Your task to perform on an android device: Open Google Maps and go to "Timeline" Image 0: 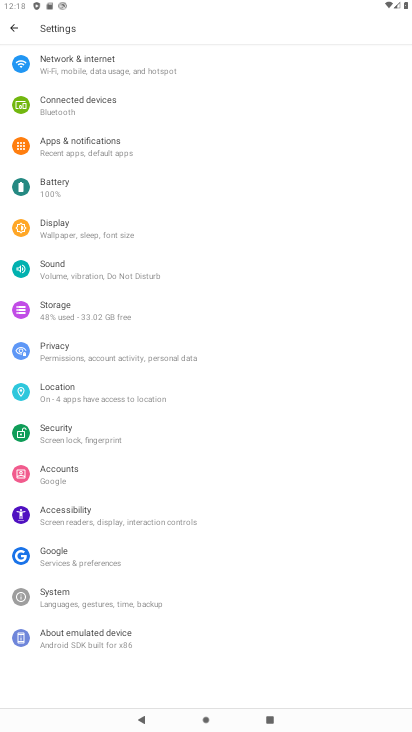
Step 0: press home button
Your task to perform on an android device: Open Google Maps and go to "Timeline" Image 1: 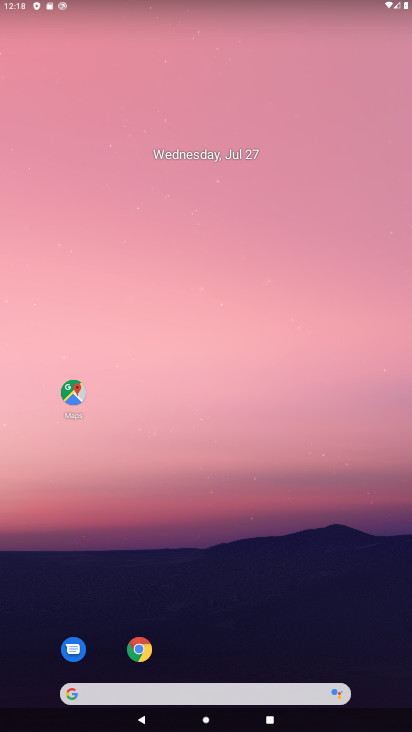
Step 1: click (77, 395)
Your task to perform on an android device: Open Google Maps and go to "Timeline" Image 2: 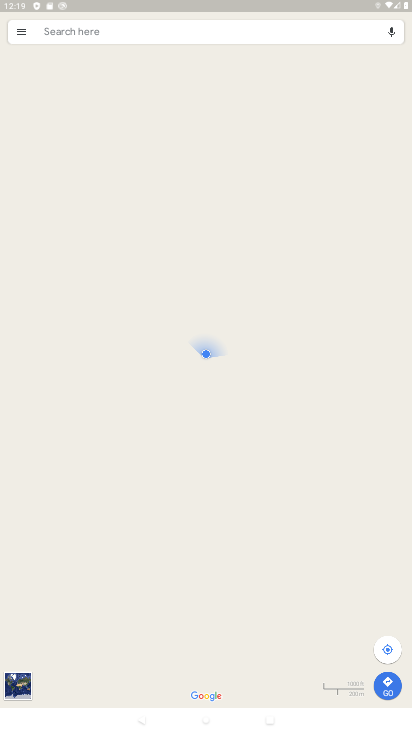
Step 2: click (19, 32)
Your task to perform on an android device: Open Google Maps and go to "Timeline" Image 3: 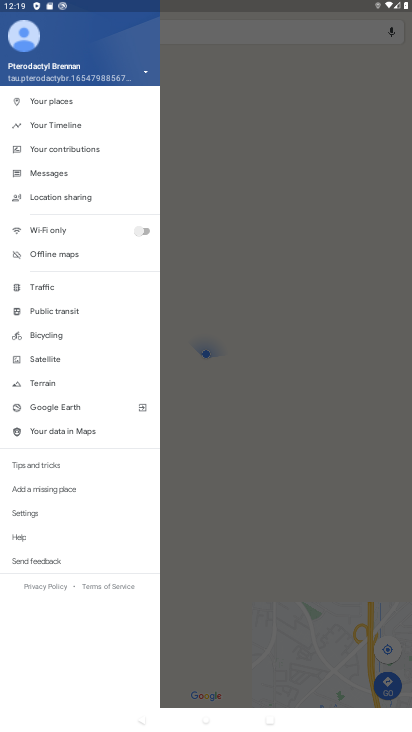
Step 3: click (62, 124)
Your task to perform on an android device: Open Google Maps and go to "Timeline" Image 4: 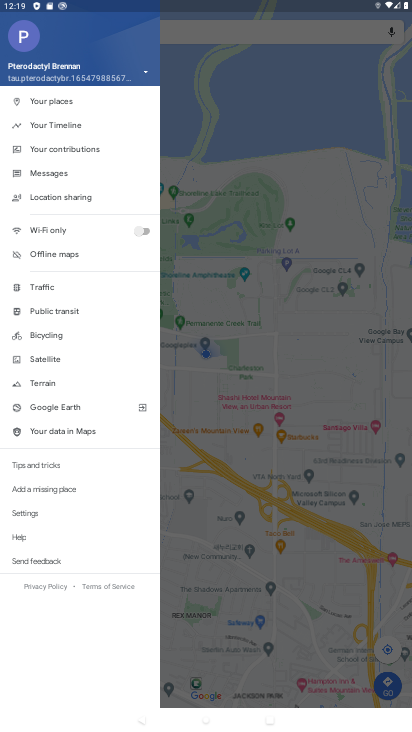
Step 4: click (64, 127)
Your task to perform on an android device: Open Google Maps and go to "Timeline" Image 5: 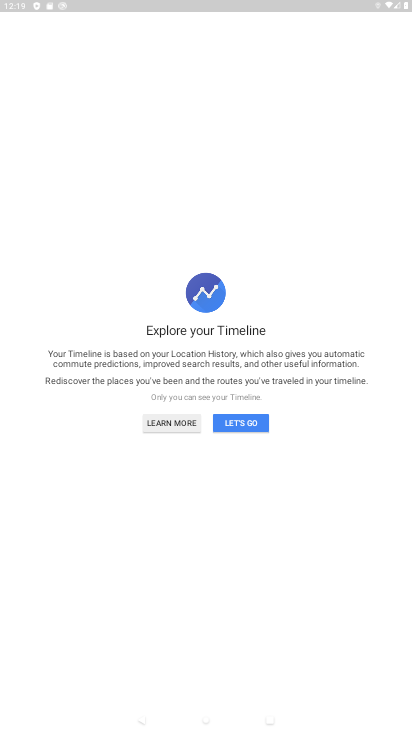
Step 5: click (240, 417)
Your task to perform on an android device: Open Google Maps and go to "Timeline" Image 6: 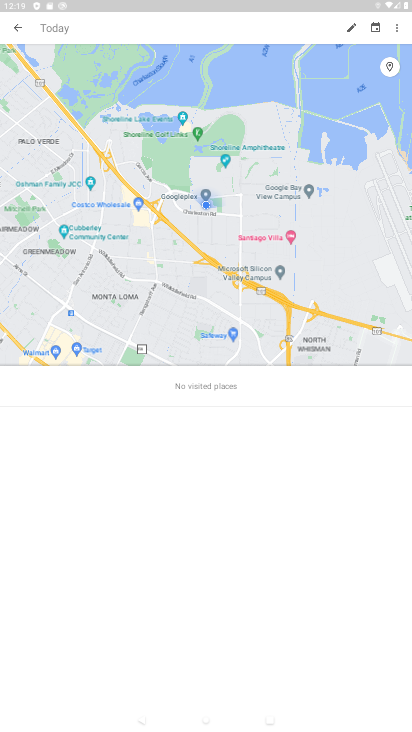
Step 6: task complete